Your task to perform on an android device: Open CNN.com Image 0: 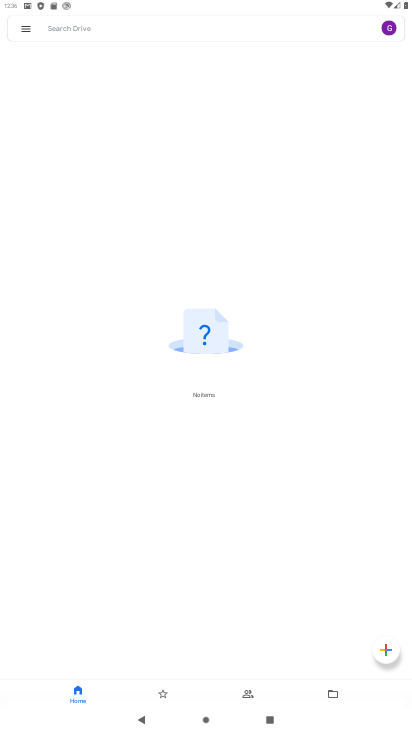
Step 0: press home button
Your task to perform on an android device: Open CNN.com Image 1: 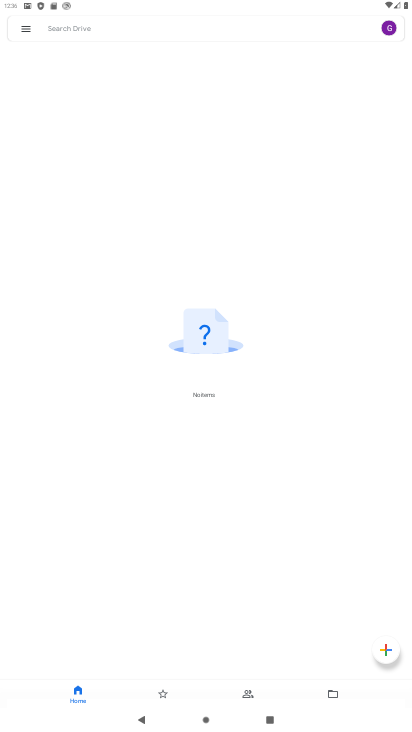
Step 1: press home button
Your task to perform on an android device: Open CNN.com Image 2: 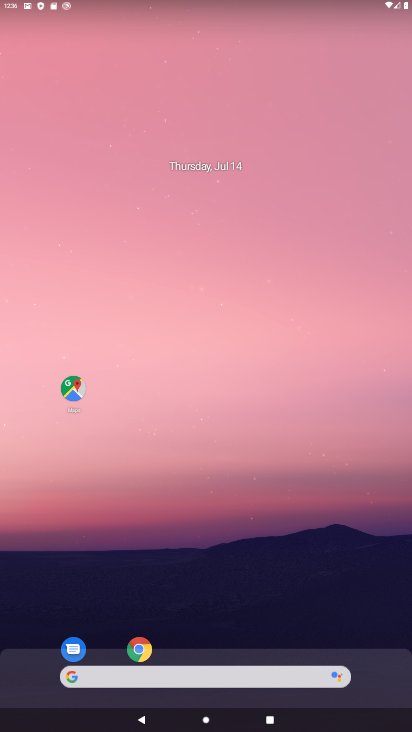
Step 2: drag from (176, 687) to (234, 312)
Your task to perform on an android device: Open CNN.com Image 3: 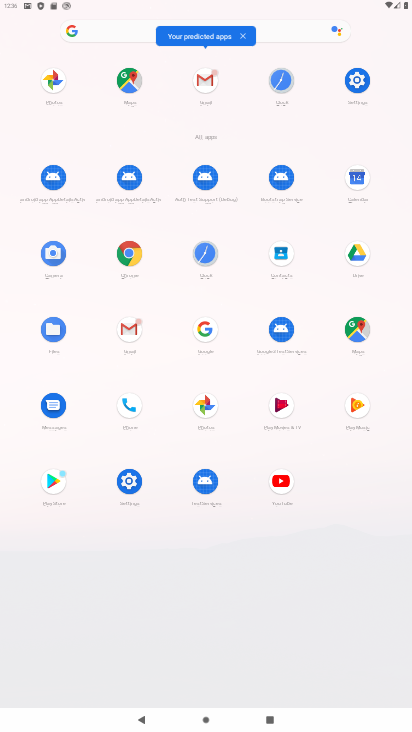
Step 3: click (128, 251)
Your task to perform on an android device: Open CNN.com Image 4: 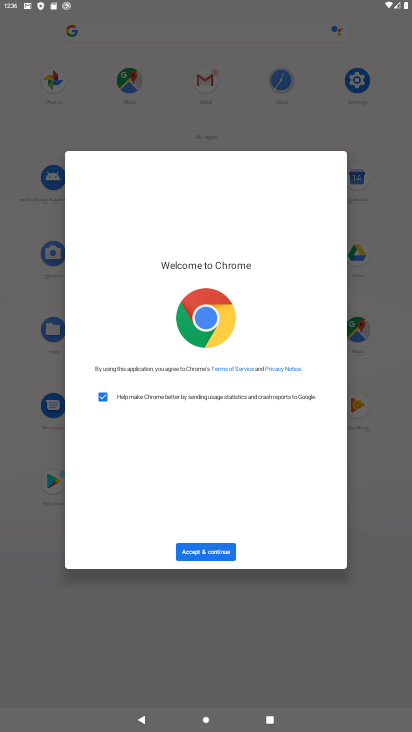
Step 4: click (183, 550)
Your task to perform on an android device: Open CNN.com Image 5: 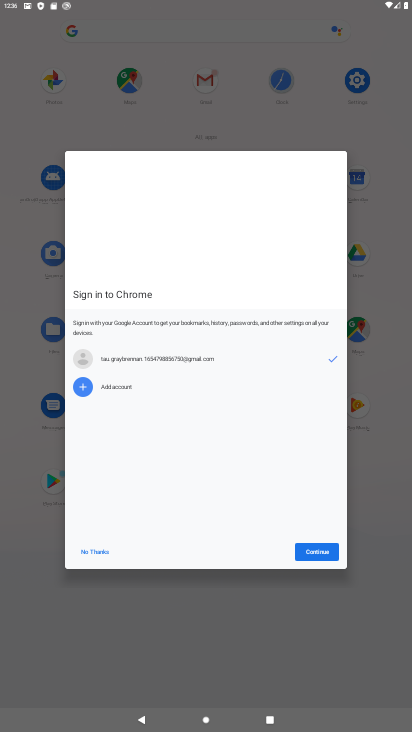
Step 5: click (326, 551)
Your task to perform on an android device: Open CNN.com Image 6: 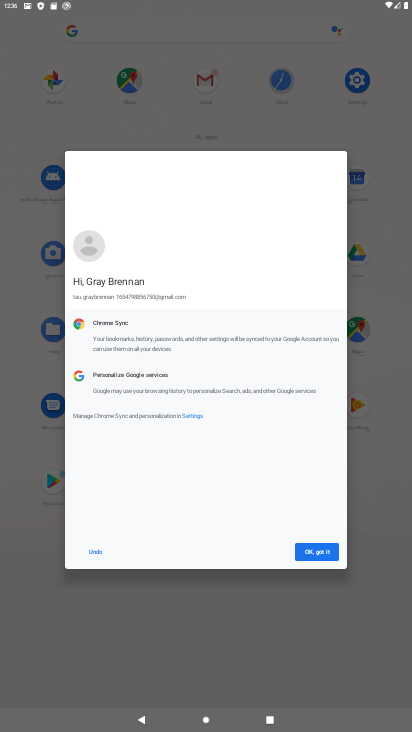
Step 6: click (326, 551)
Your task to perform on an android device: Open CNN.com Image 7: 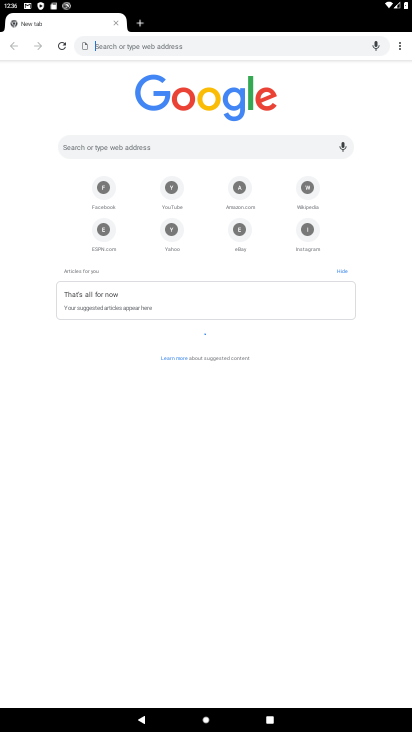
Step 7: click (115, 151)
Your task to perform on an android device: Open CNN.com Image 8: 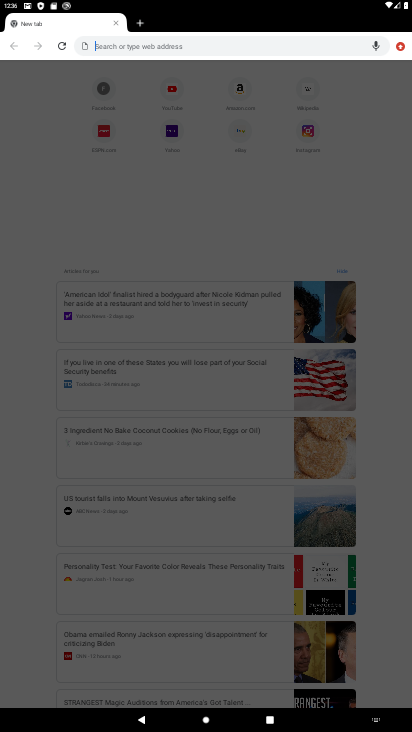
Step 8: type "CNN.com"
Your task to perform on an android device: Open CNN.com Image 9: 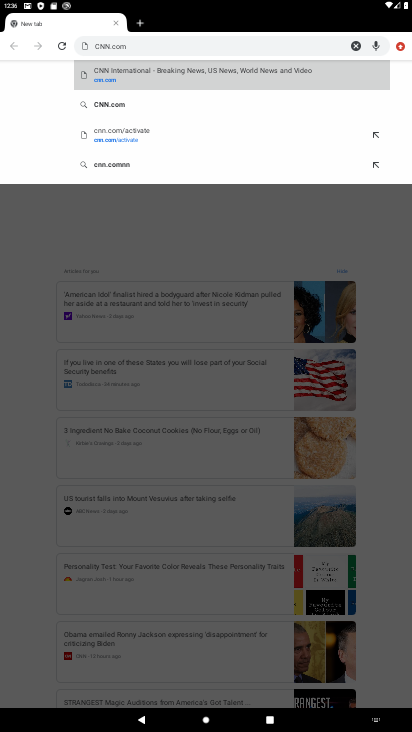
Step 9: click (148, 82)
Your task to perform on an android device: Open CNN.com Image 10: 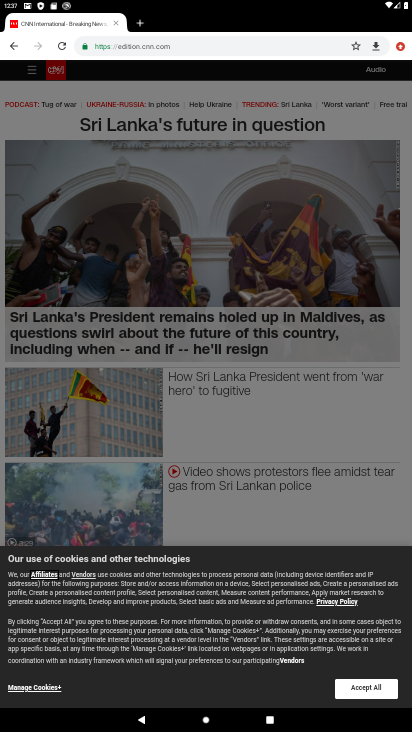
Step 10: click (366, 680)
Your task to perform on an android device: Open CNN.com Image 11: 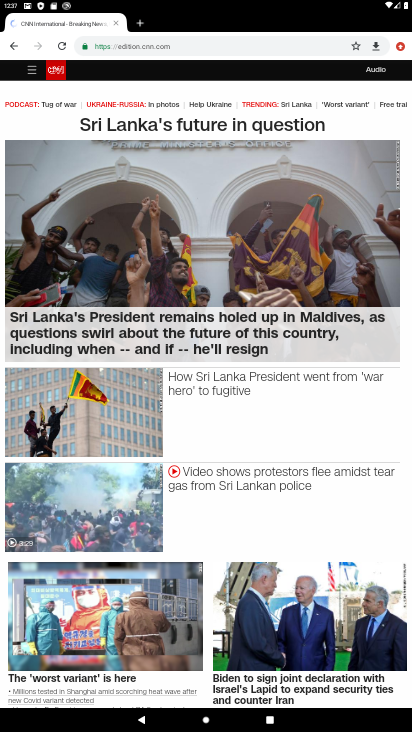
Step 11: task complete